Your task to perform on an android device: Find coffee shops on Maps Image 0: 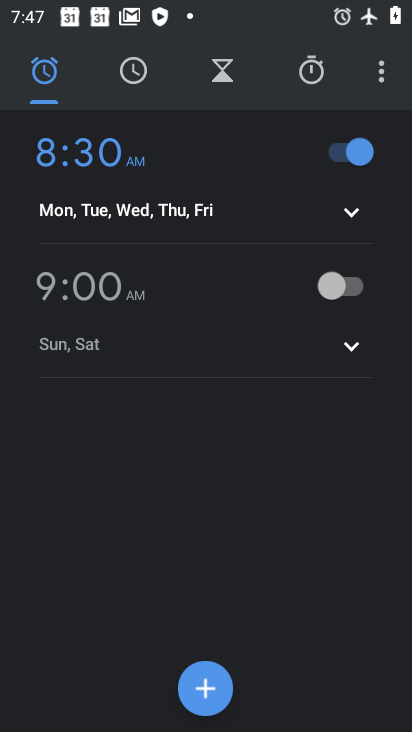
Step 0: press home button
Your task to perform on an android device: Find coffee shops on Maps Image 1: 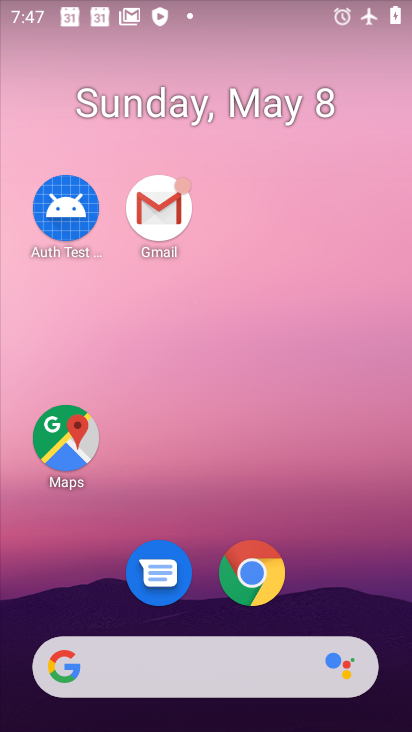
Step 1: drag from (368, 614) to (211, 160)
Your task to perform on an android device: Find coffee shops on Maps Image 2: 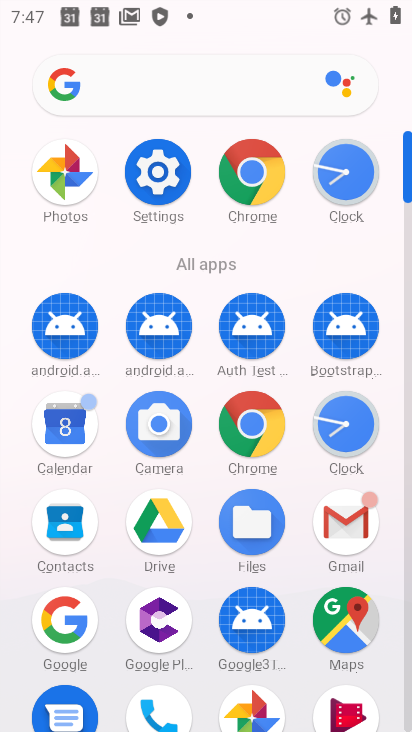
Step 2: click (338, 621)
Your task to perform on an android device: Find coffee shops on Maps Image 3: 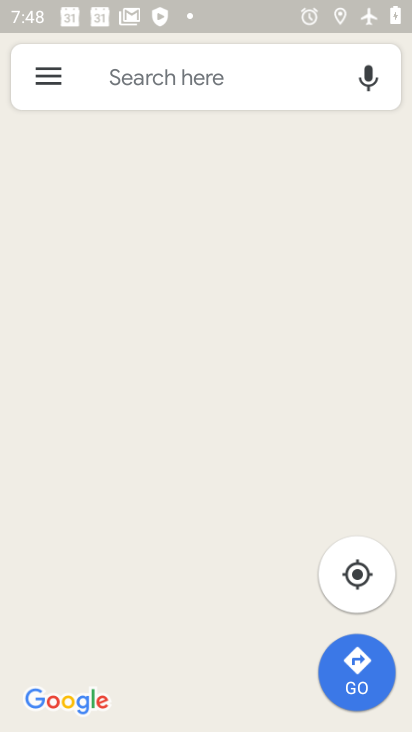
Step 3: click (121, 79)
Your task to perform on an android device: Find coffee shops on Maps Image 4: 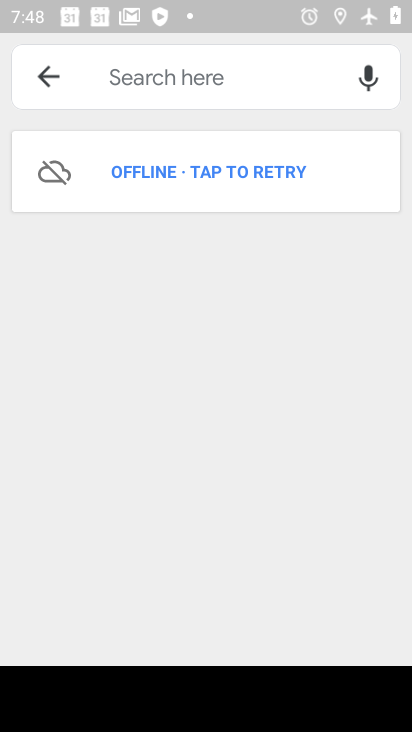
Step 4: click (121, 83)
Your task to perform on an android device: Find coffee shops on Maps Image 5: 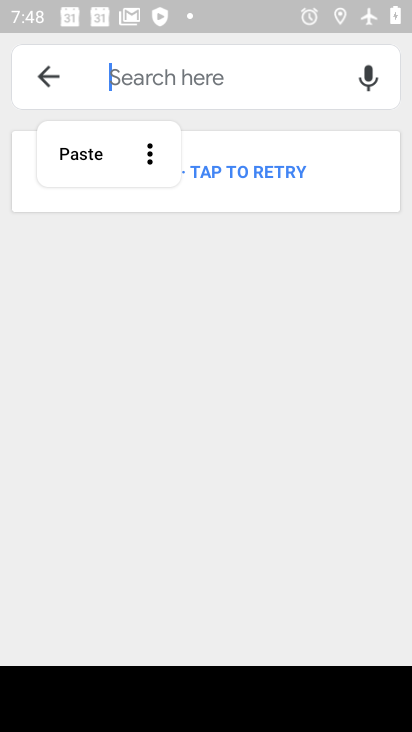
Step 5: type "coffee"
Your task to perform on an android device: Find coffee shops on Maps Image 6: 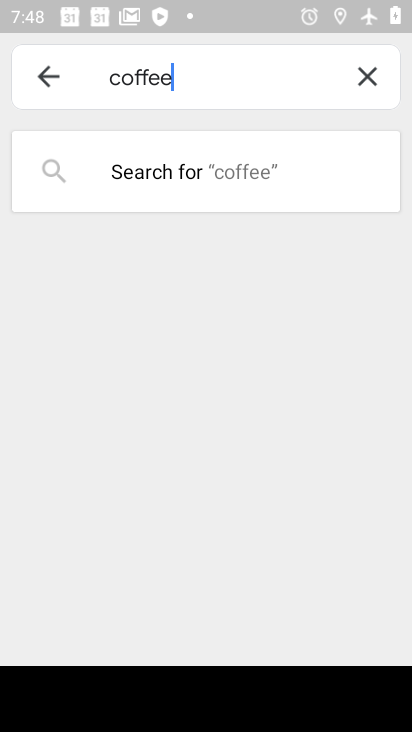
Step 6: task complete